Your task to perform on an android device: Toggle the flashlight Image 0: 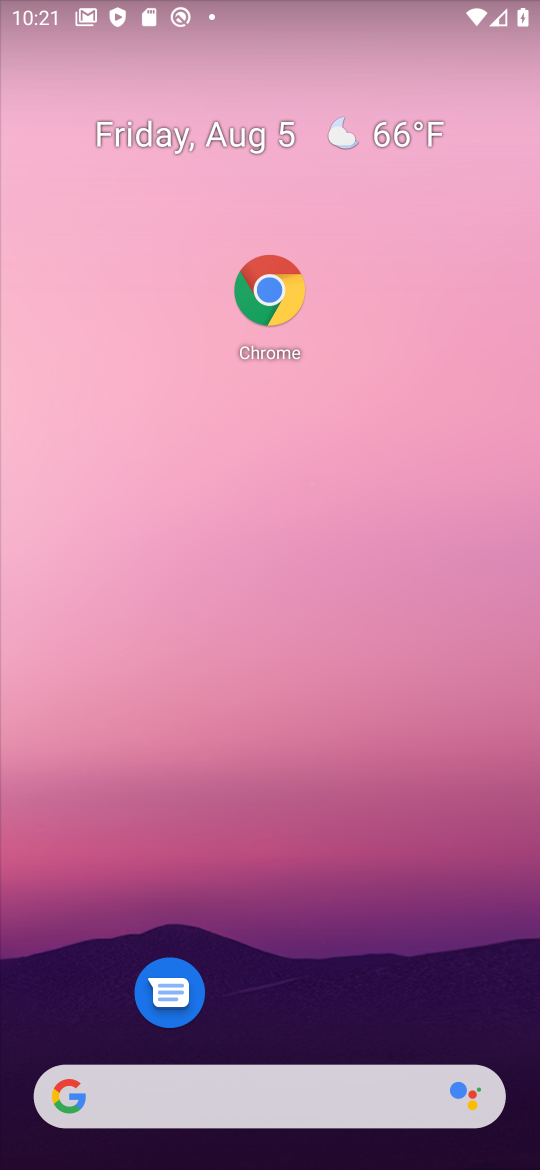
Step 0: drag from (370, 1013) to (328, 234)
Your task to perform on an android device: Toggle the flashlight Image 1: 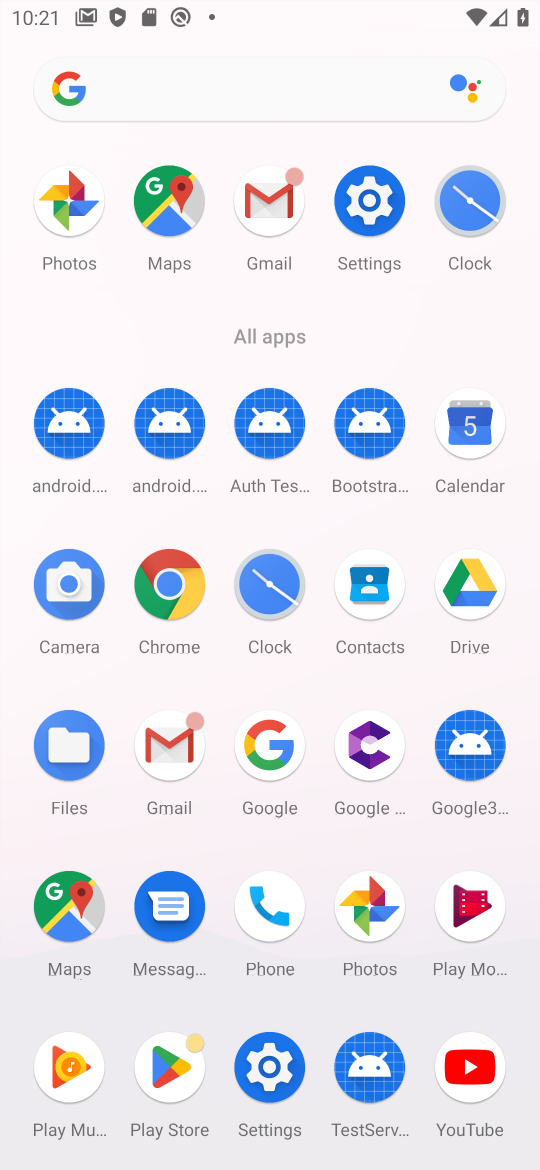
Step 1: click (354, 217)
Your task to perform on an android device: Toggle the flashlight Image 2: 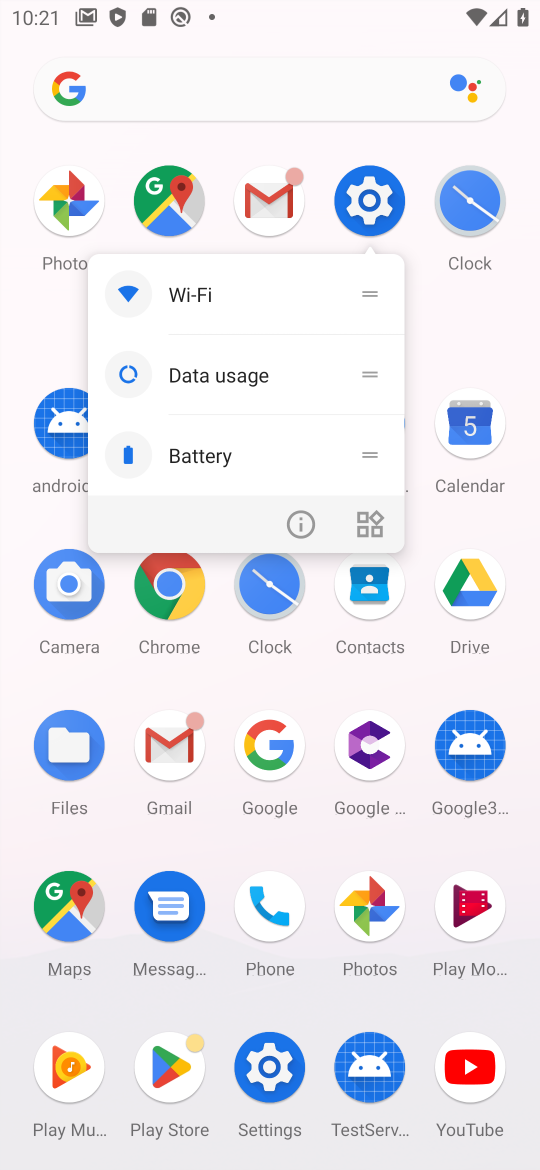
Step 2: click (354, 214)
Your task to perform on an android device: Toggle the flashlight Image 3: 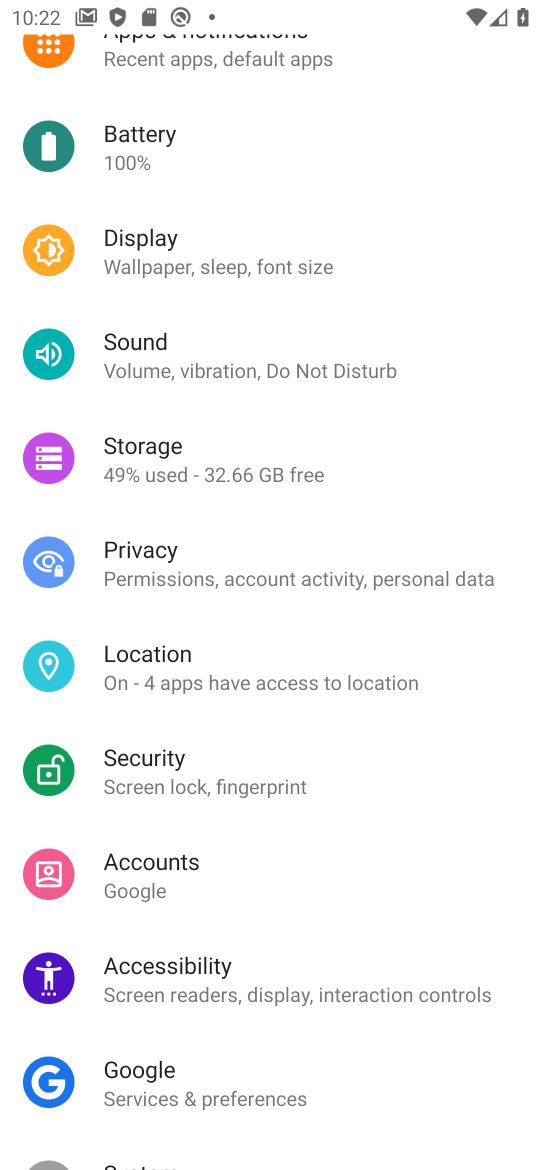
Step 3: task complete